Your task to perform on an android device: Open Youtube and go to "Your channel" Image 0: 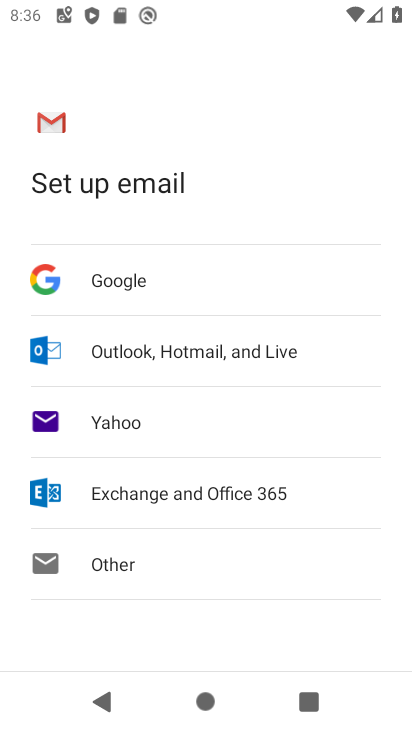
Step 0: press home button
Your task to perform on an android device: Open Youtube and go to "Your channel" Image 1: 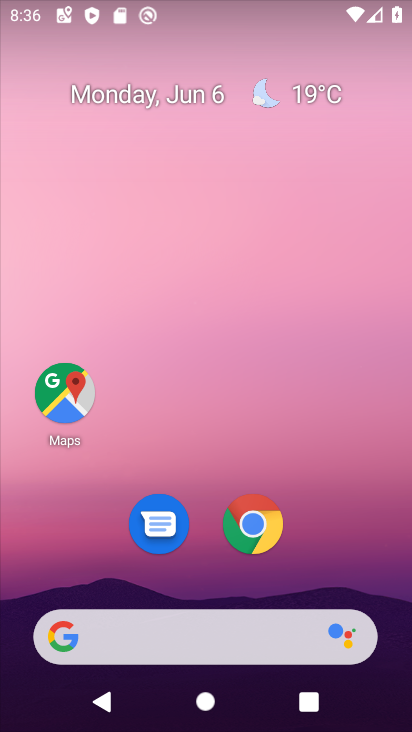
Step 1: drag from (316, 525) to (351, 1)
Your task to perform on an android device: Open Youtube and go to "Your channel" Image 2: 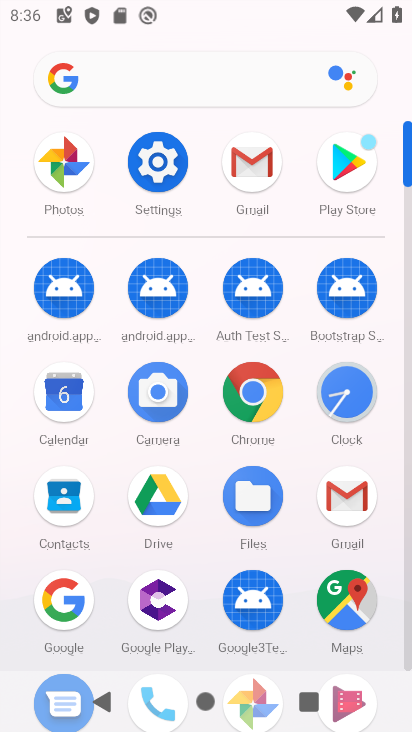
Step 2: drag from (290, 540) to (294, 219)
Your task to perform on an android device: Open Youtube and go to "Your channel" Image 3: 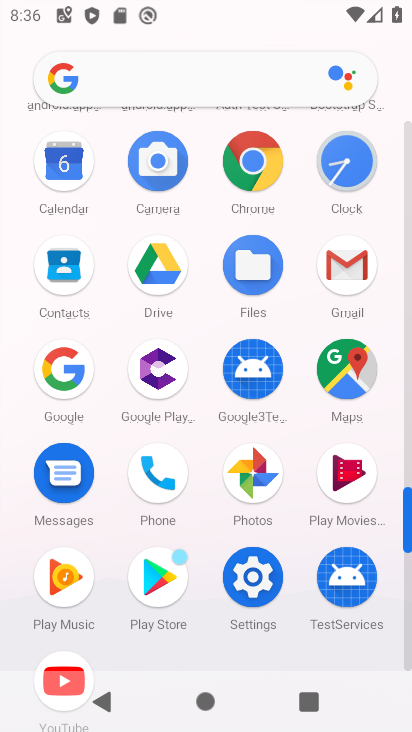
Step 3: drag from (121, 555) to (120, 363)
Your task to perform on an android device: Open Youtube and go to "Your channel" Image 4: 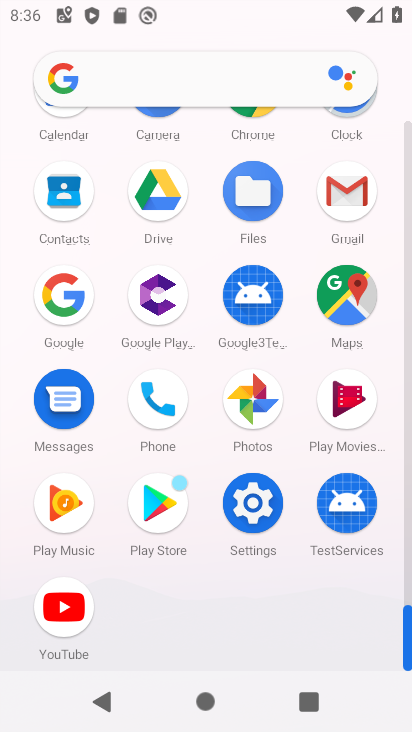
Step 4: click (65, 582)
Your task to perform on an android device: Open Youtube and go to "Your channel" Image 5: 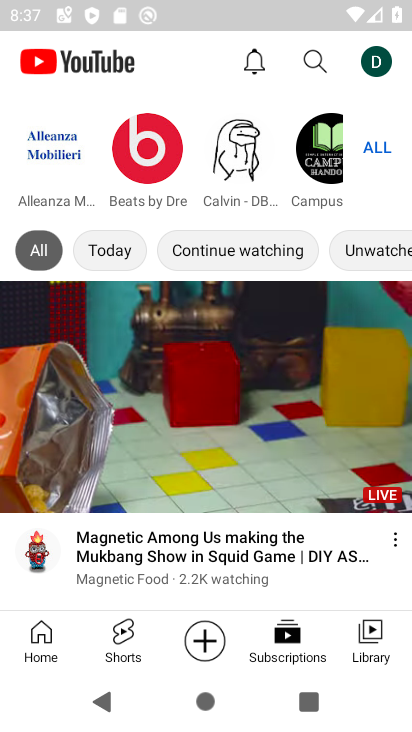
Step 5: click (379, 54)
Your task to perform on an android device: Open Youtube and go to "Your channel" Image 6: 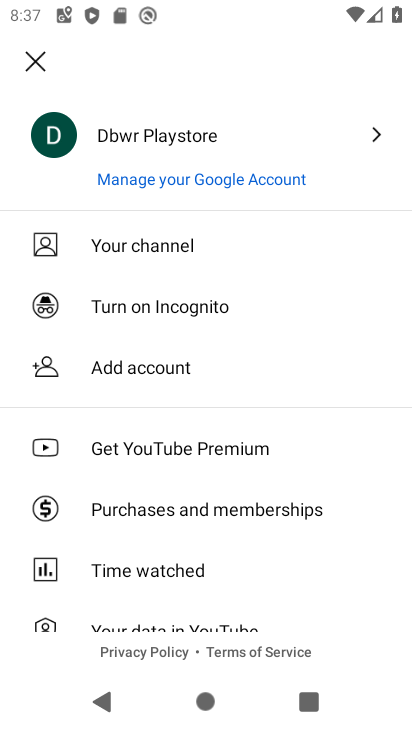
Step 6: click (215, 244)
Your task to perform on an android device: Open Youtube and go to "Your channel" Image 7: 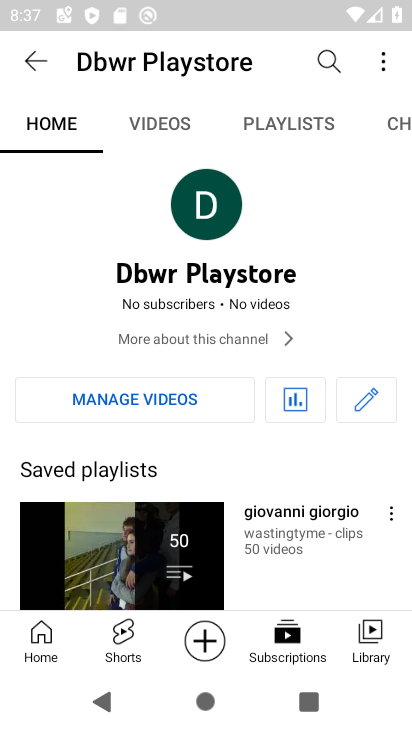
Step 7: task complete